Your task to perform on an android device: Open privacy settings Image 0: 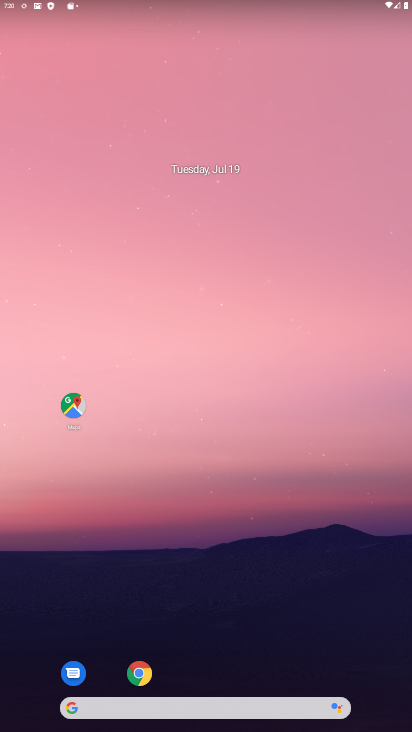
Step 0: drag from (283, 574) to (299, 51)
Your task to perform on an android device: Open privacy settings Image 1: 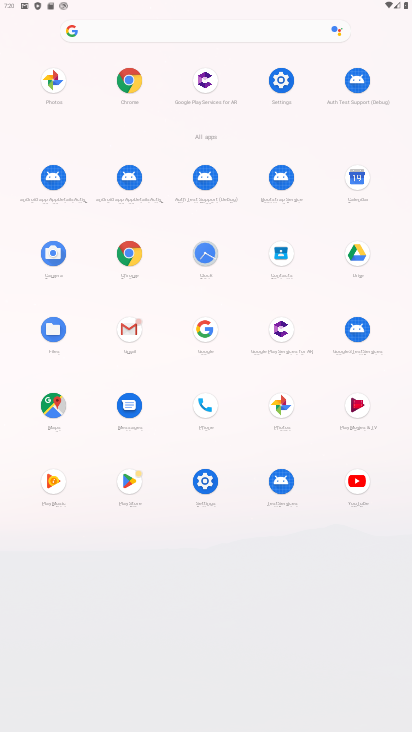
Step 1: click (274, 78)
Your task to perform on an android device: Open privacy settings Image 2: 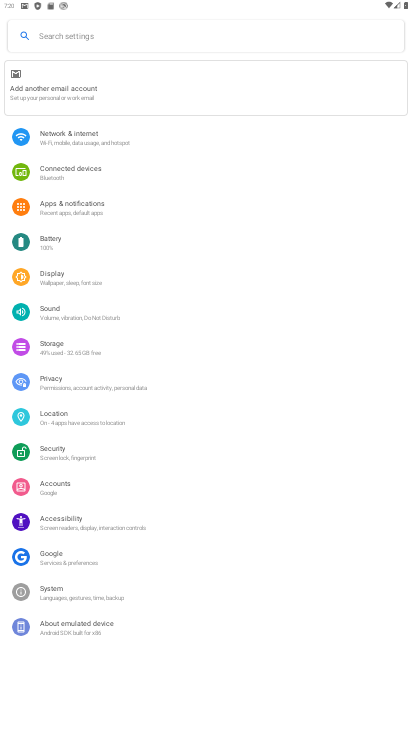
Step 2: click (80, 382)
Your task to perform on an android device: Open privacy settings Image 3: 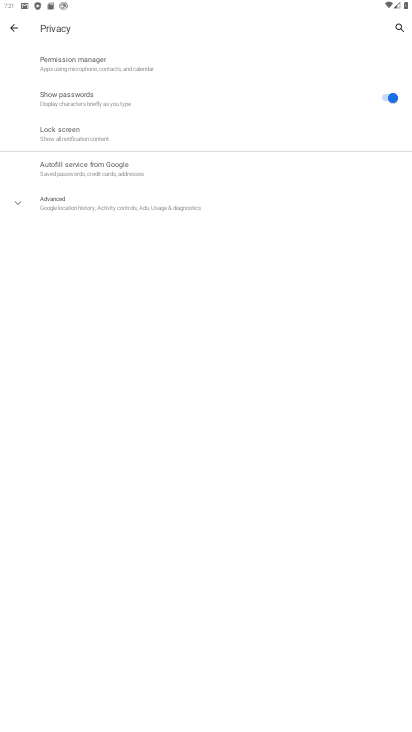
Step 3: task complete